Your task to perform on an android device: Is it going to rain this weekend? Image 0: 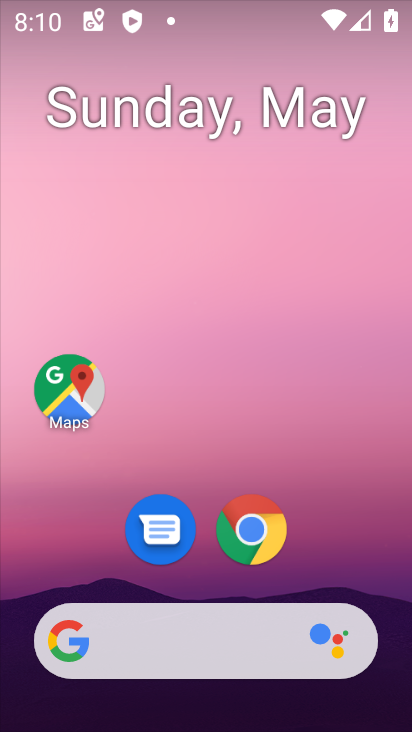
Step 0: click (114, 639)
Your task to perform on an android device: Is it going to rain this weekend? Image 1: 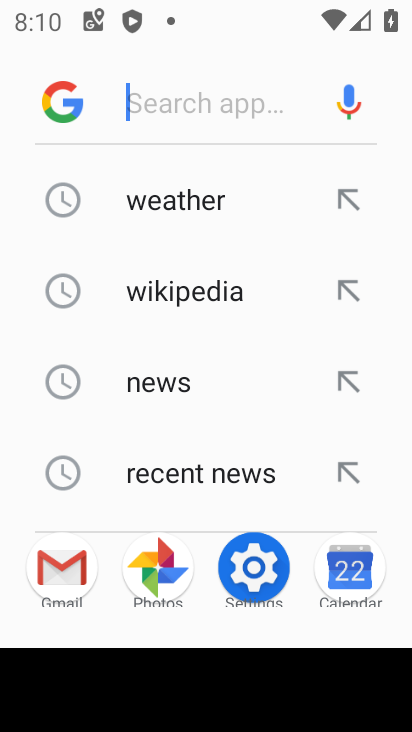
Step 1: click (169, 212)
Your task to perform on an android device: Is it going to rain this weekend? Image 2: 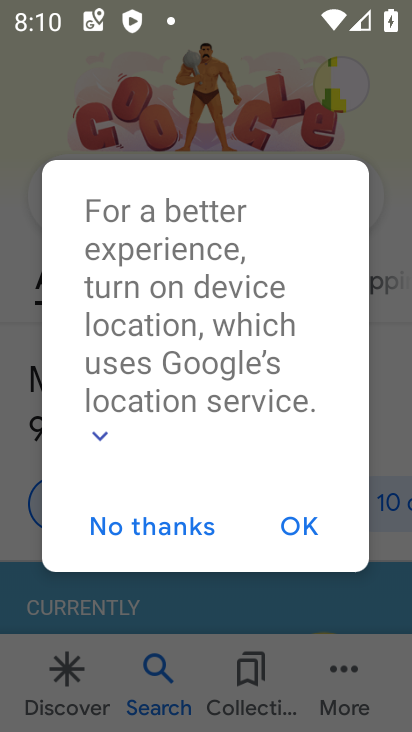
Step 2: click (113, 535)
Your task to perform on an android device: Is it going to rain this weekend? Image 3: 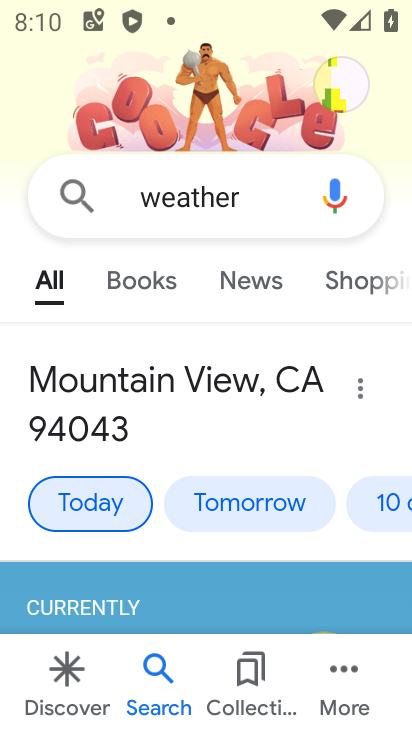
Step 3: click (376, 500)
Your task to perform on an android device: Is it going to rain this weekend? Image 4: 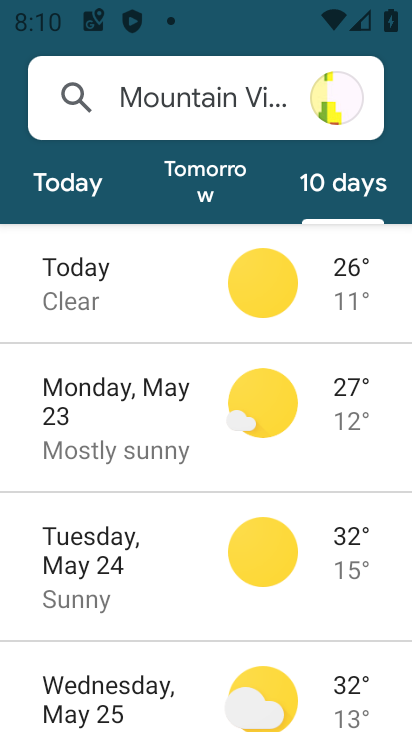
Step 4: task complete